Your task to perform on an android device: Go to Wikipedia Image 0: 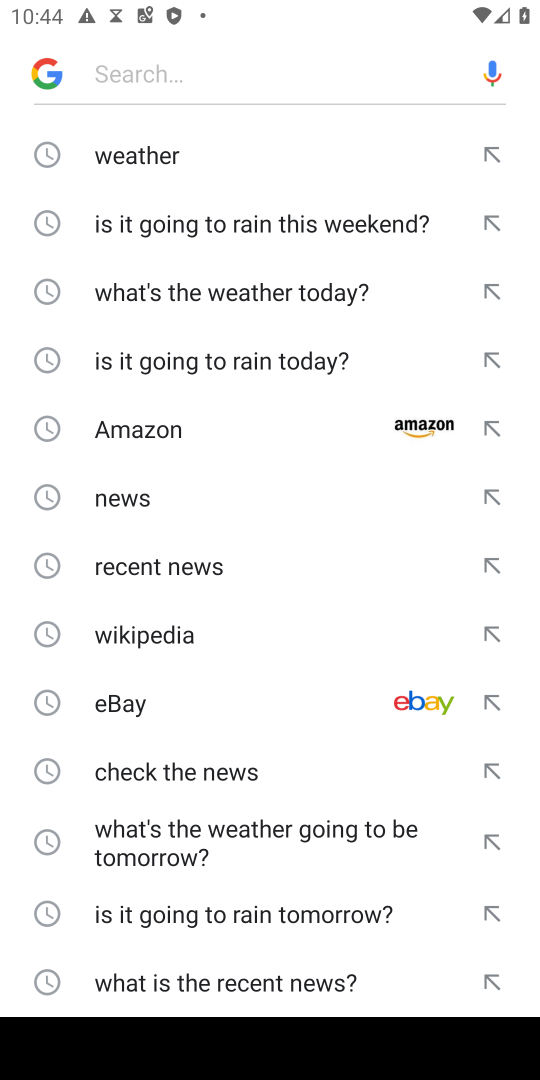
Step 0: press home button
Your task to perform on an android device: Go to Wikipedia Image 1: 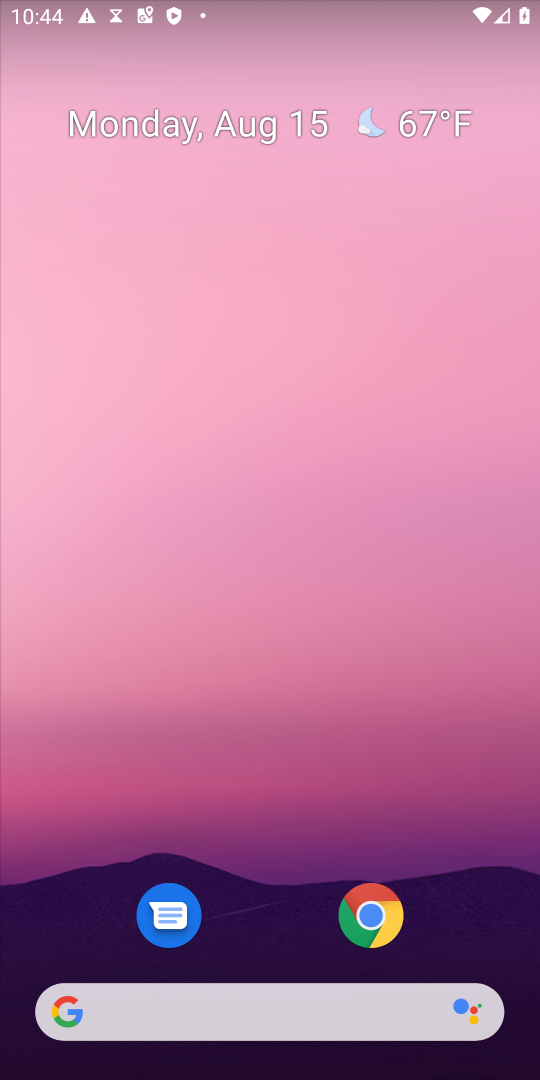
Step 1: click (66, 1015)
Your task to perform on an android device: Go to Wikipedia Image 2: 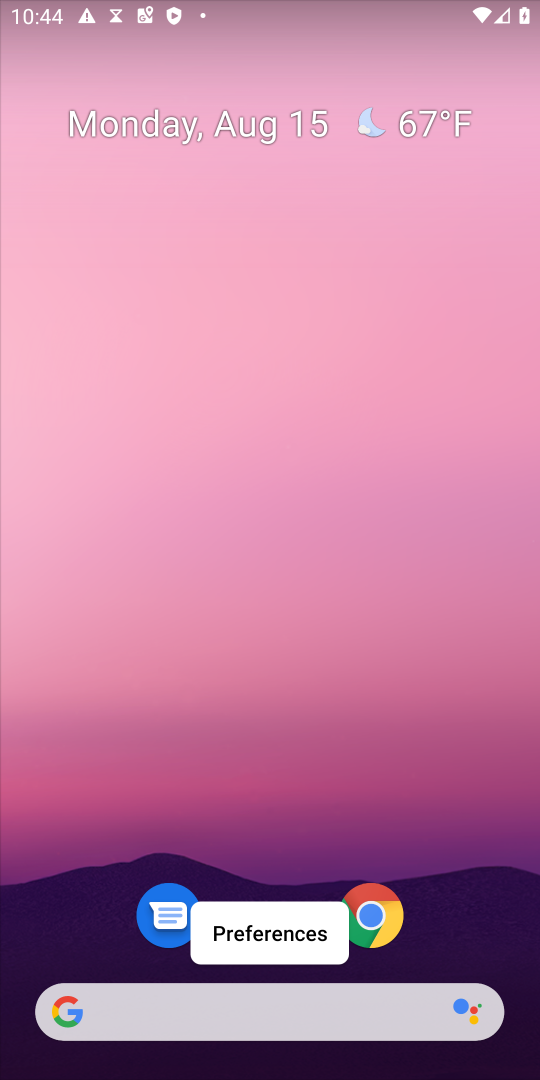
Step 2: click (63, 1006)
Your task to perform on an android device: Go to Wikipedia Image 3: 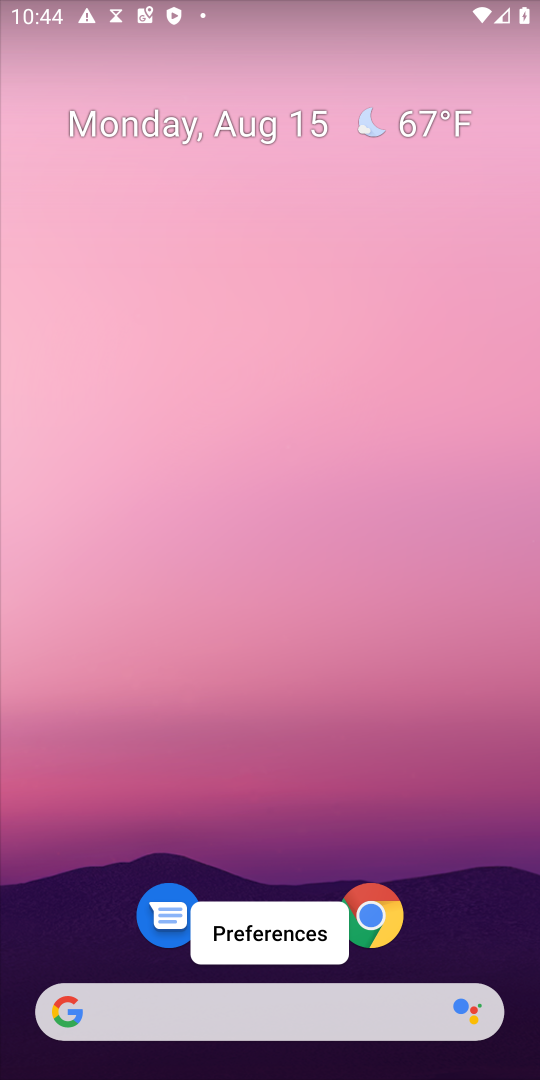
Step 3: click (63, 1006)
Your task to perform on an android device: Go to Wikipedia Image 4: 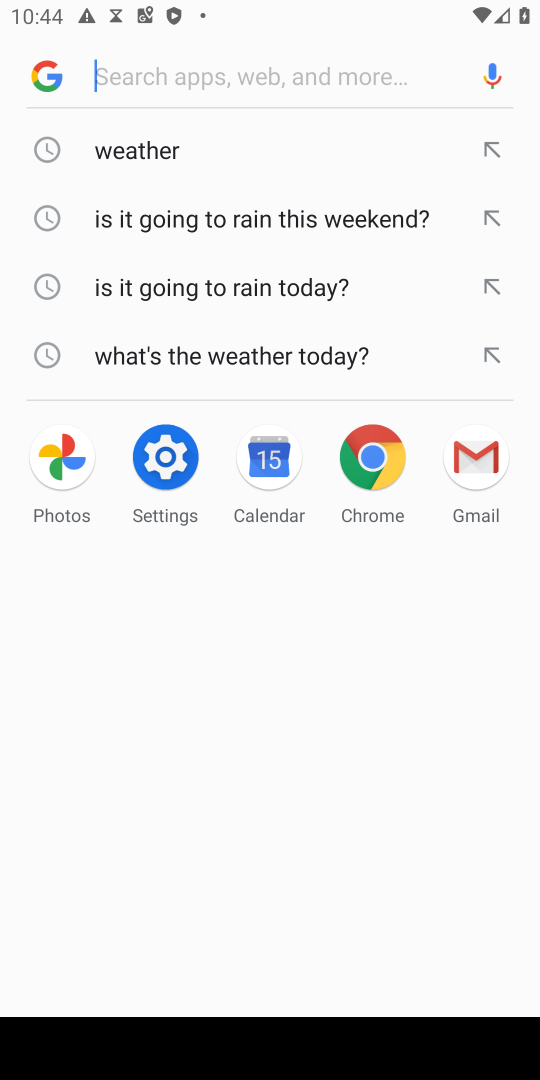
Step 4: press enter
Your task to perform on an android device: Go to Wikipedia Image 5: 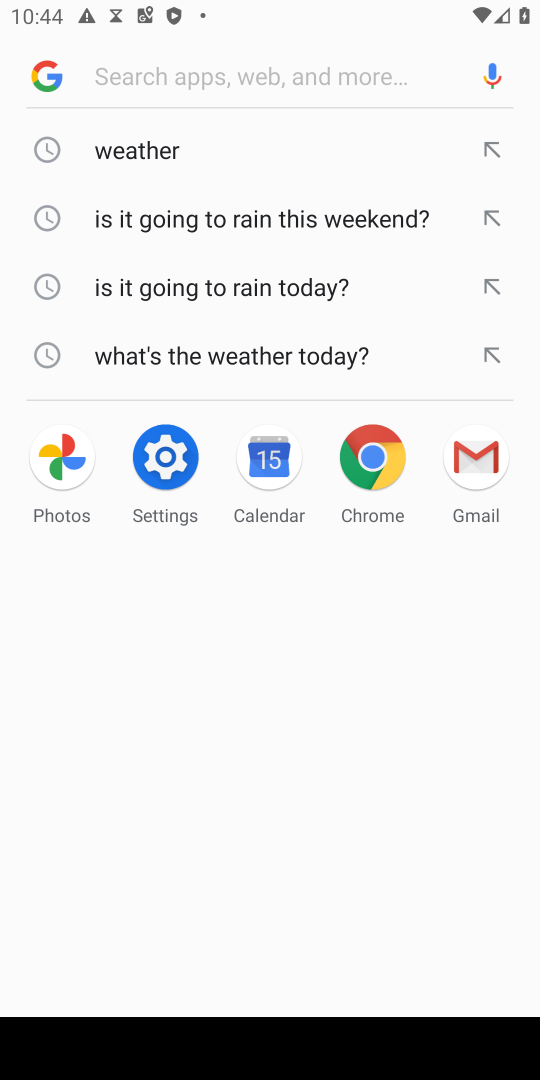
Step 5: type "Wikipedia"
Your task to perform on an android device: Go to Wikipedia Image 6: 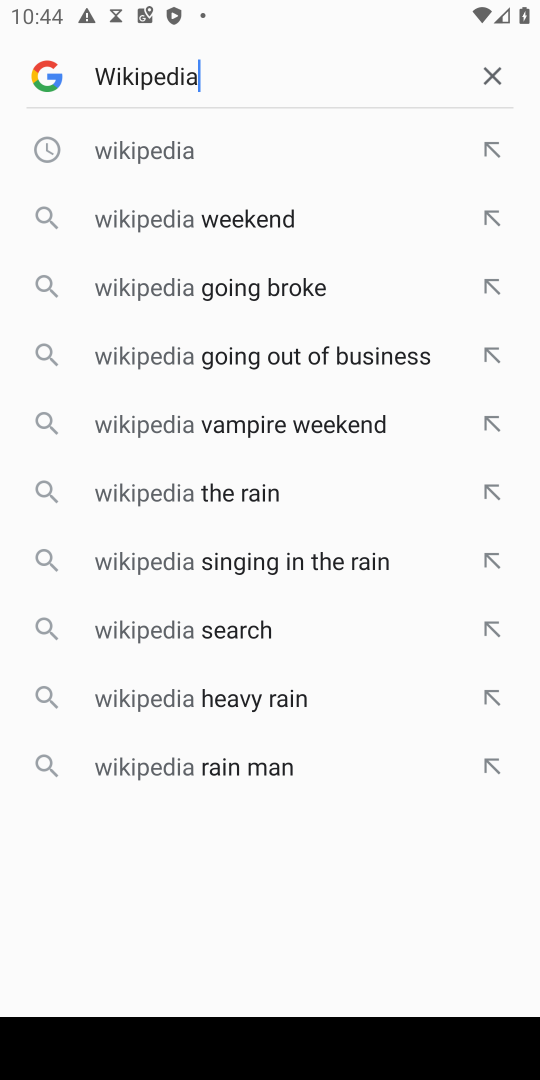
Step 6: press enter
Your task to perform on an android device: Go to Wikipedia Image 7: 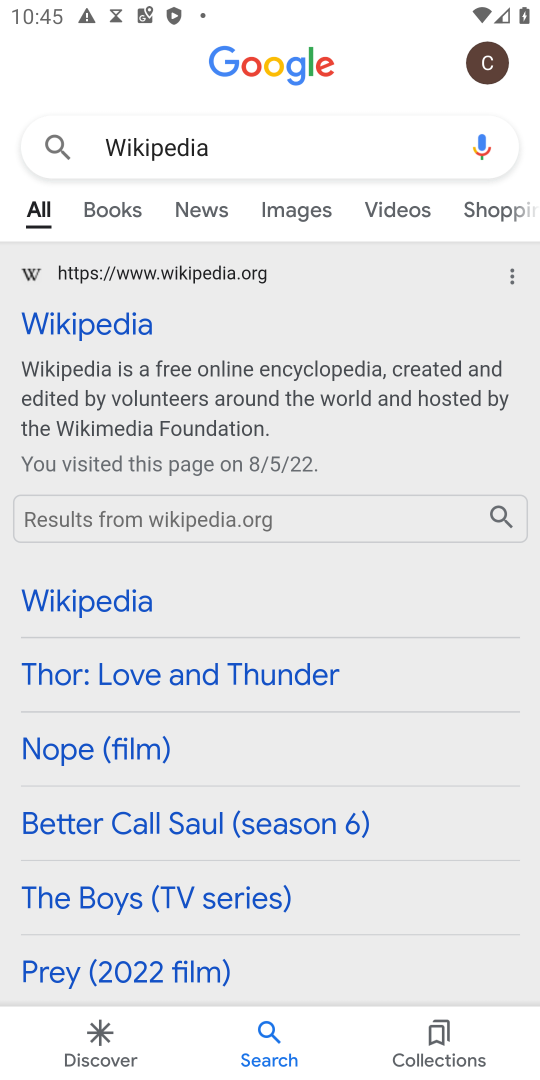
Step 7: click (86, 311)
Your task to perform on an android device: Go to Wikipedia Image 8: 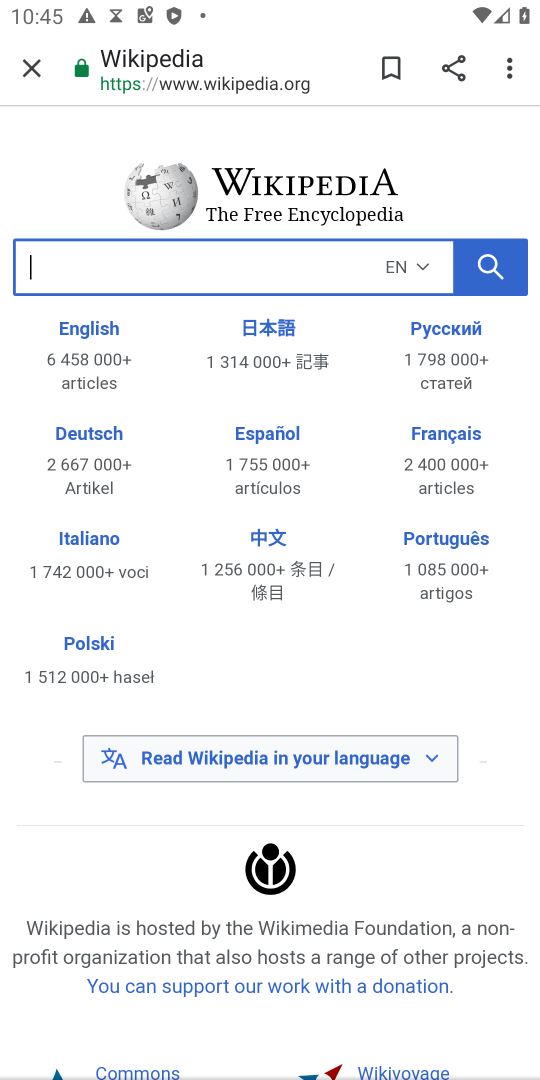
Step 8: task complete